Your task to perform on an android device: Open settings Image 0: 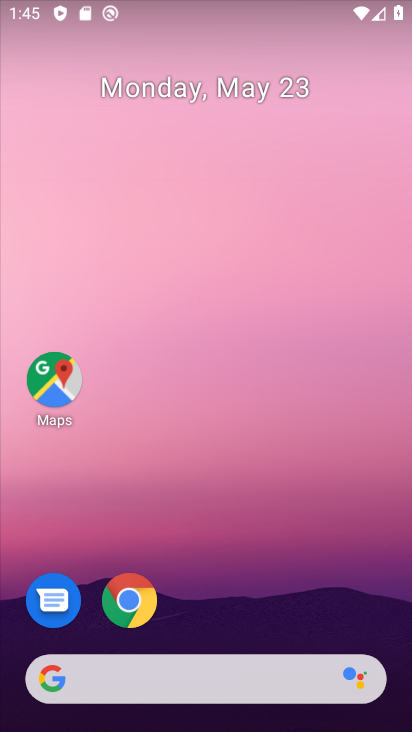
Step 0: drag from (234, 629) to (253, 122)
Your task to perform on an android device: Open settings Image 1: 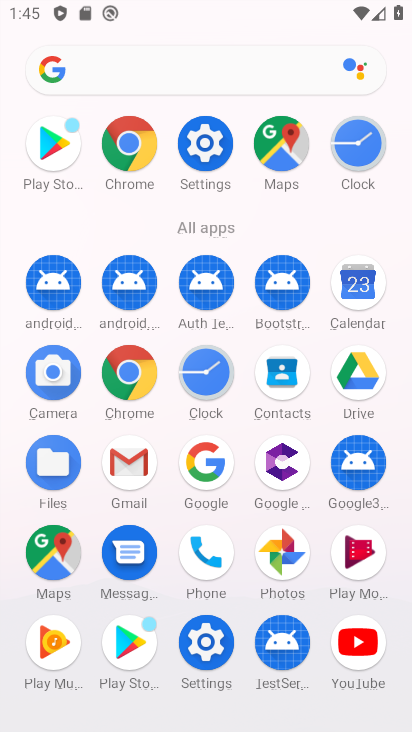
Step 1: click (207, 152)
Your task to perform on an android device: Open settings Image 2: 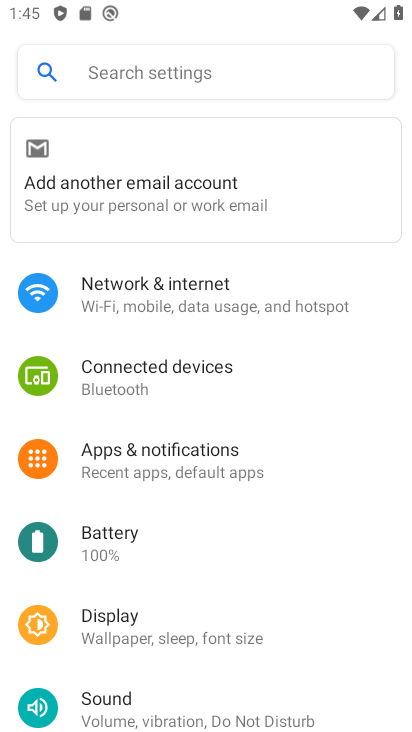
Step 2: task complete